Your task to perform on an android device: change timer sound Image 0: 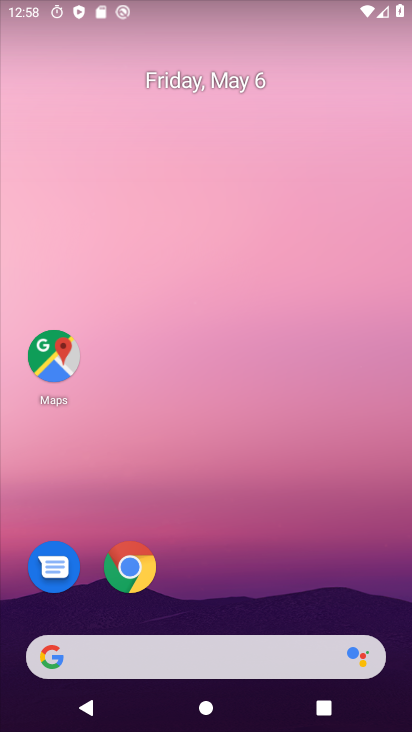
Step 0: drag from (261, 683) to (241, 308)
Your task to perform on an android device: change timer sound Image 1: 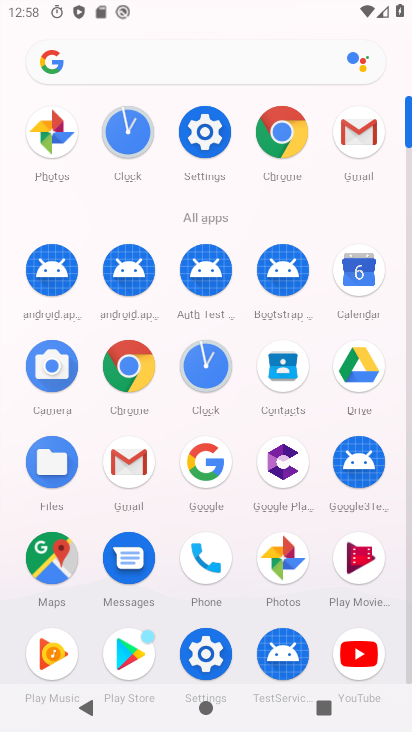
Step 1: click (223, 372)
Your task to perform on an android device: change timer sound Image 2: 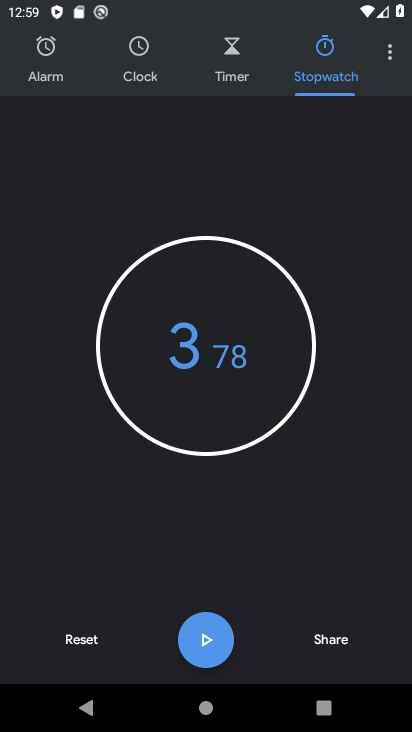
Step 2: click (396, 72)
Your task to perform on an android device: change timer sound Image 3: 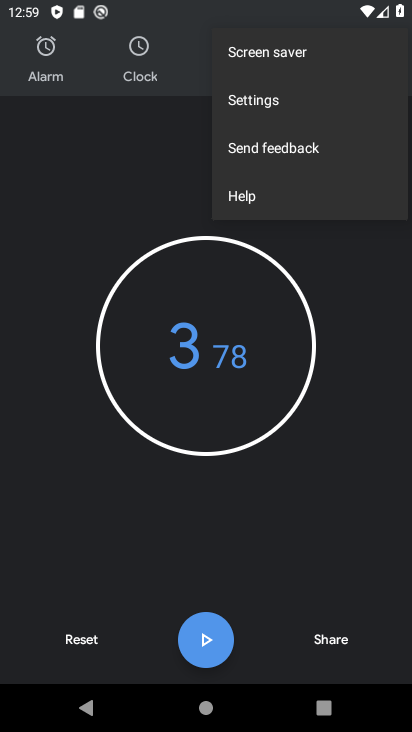
Step 3: click (303, 105)
Your task to perform on an android device: change timer sound Image 4: 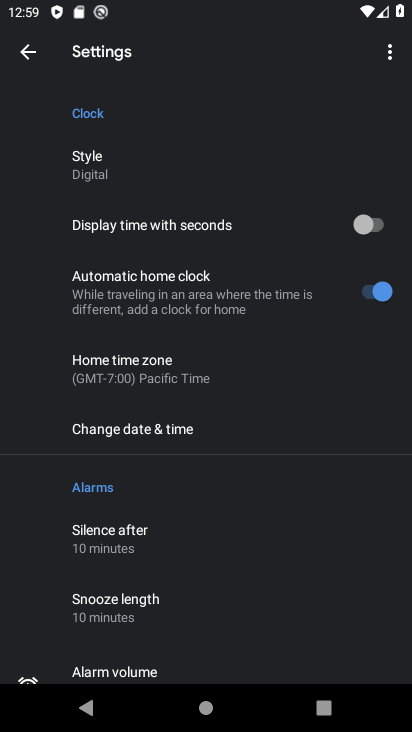
Step 4: drag from (194, 552) to (201, 307)
Your task to perform on an android device: change timer sound Image 5: 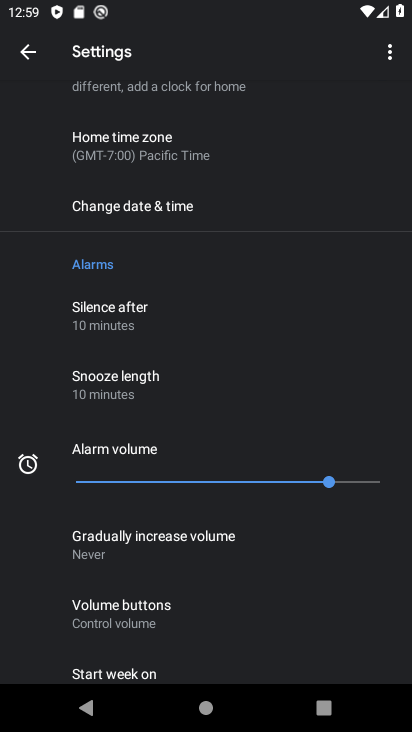
Step 5: drag from (210, 595) to (258, 332)
Your task to perform on an android device: change timer sound Image 6: 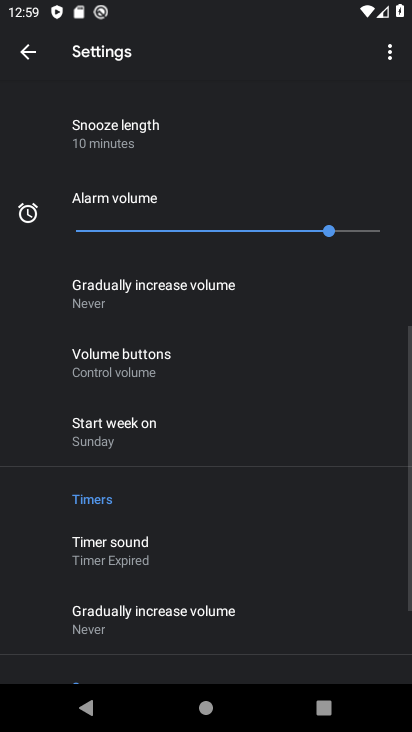
Step 6: drag from (255, 538) to (273, 314)
Your task to perform on an android device: change timer sound Image 7: 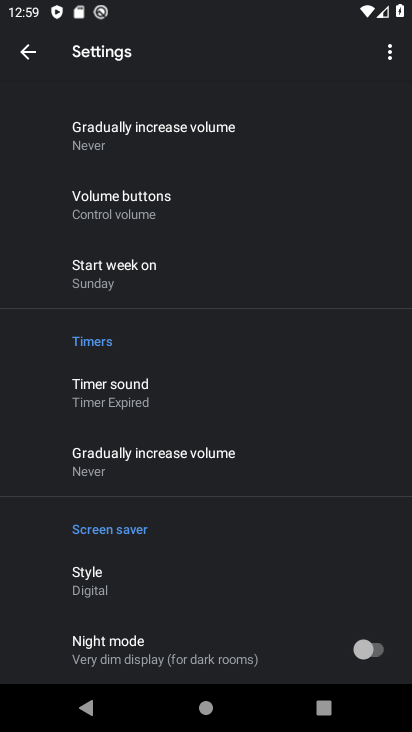
Step 7: drag from (183, 570) to (196, 498)
Your task to perform on an android device: change timer sound Image 8: 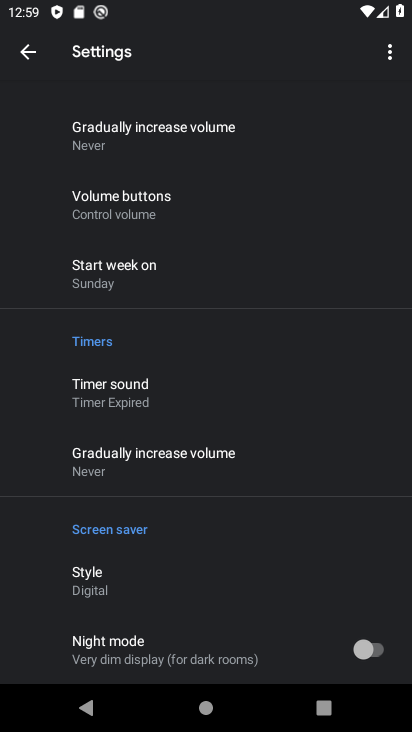
Step 8: click (190, 392)
Your task to perform on an android device: change timer sound Image 9: 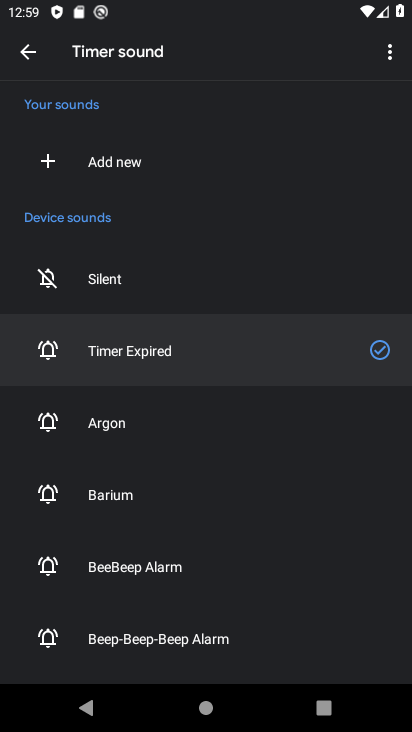
Step 9: click (164, 501)
Your task to perform on an android device: change timer sound Image 10: 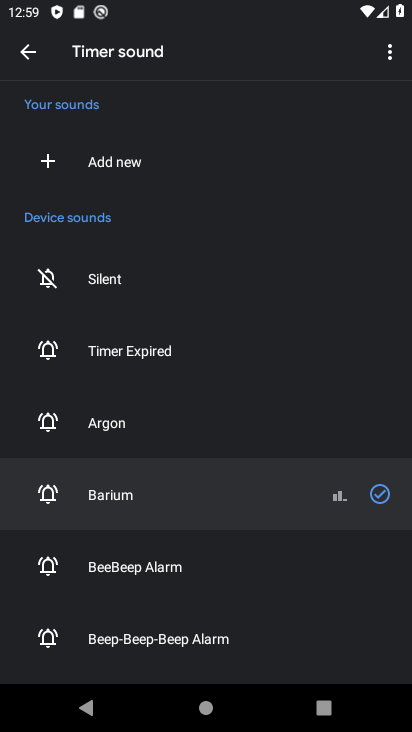
Step 10: task complete